Your task to perform on an android device: Do I have any events this weekend? Image 0: 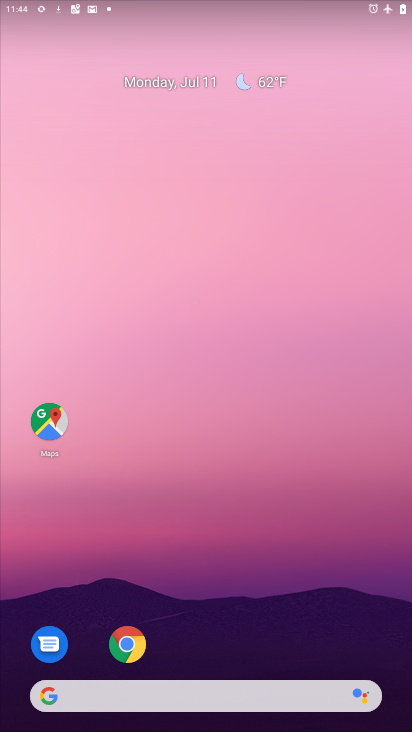
Step 0: drag from (216, 660) to (223, 1)
Your task to perform on an android device: Do I have any events this weekend? Image 1: 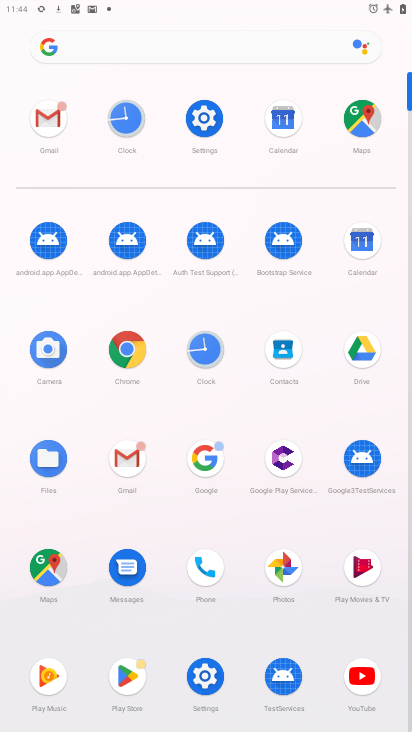
Step 1: click (364, 236)
Your task to perform on an android device: Do I have any events this weekend? Image 2: 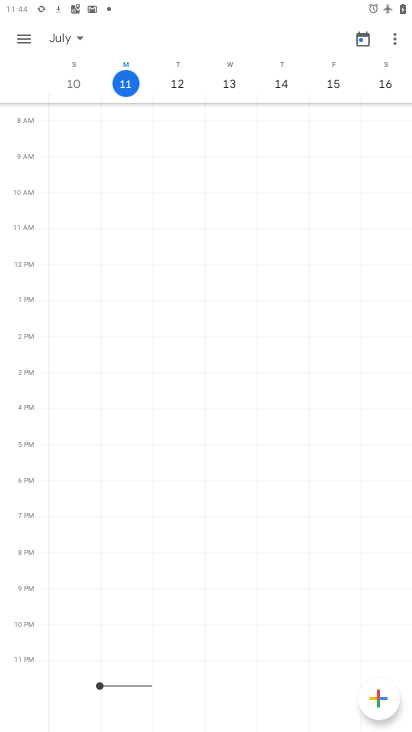
Step 2: task complete